Your task to perform on an android device: Open Google Maps Image 0: 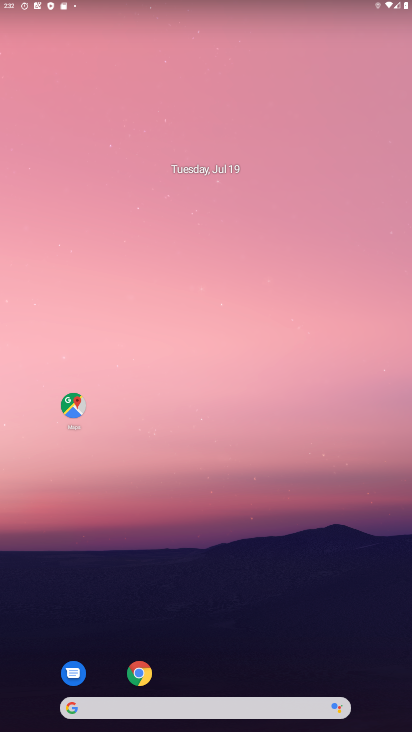
Step 0: click (73, 414)
Your task to perform on an android device: Open Google Maps Image 1: 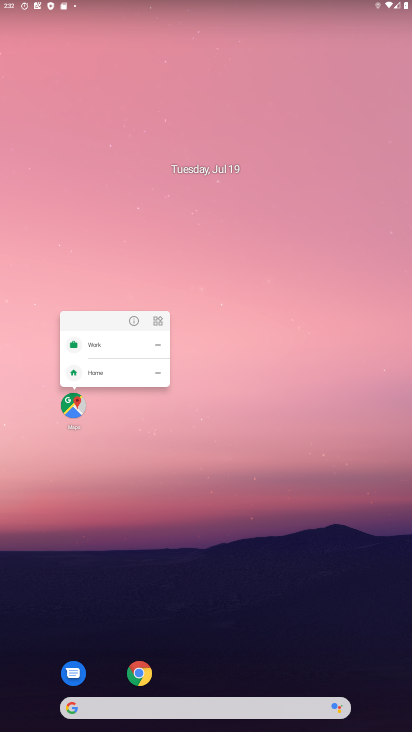
Step 1: click (79, 418)
Your task to perform on an android device: Open Google Maps Image 2: 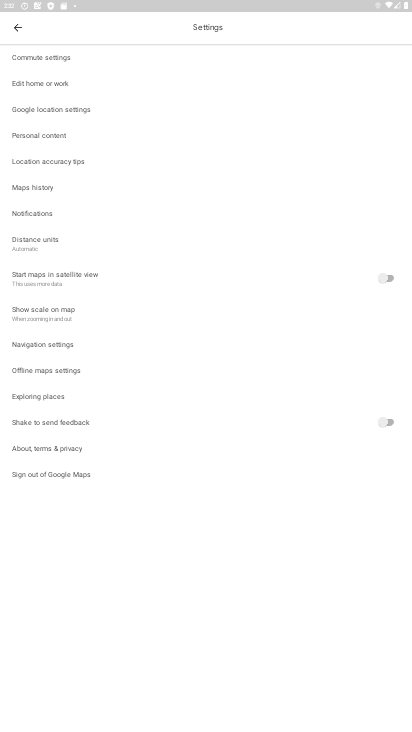
Step 2: click (12, 24)
Your task to perform on an android device: Open Google Maps Image 3: 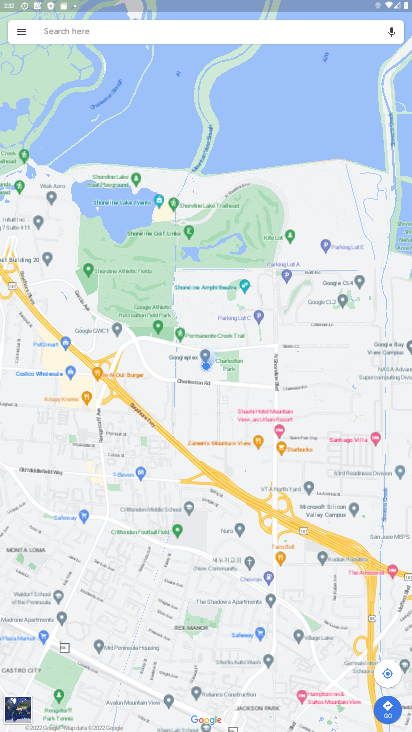
Step 3: task complete